Your task to perform on an android device: change keyboard looks Image 0: 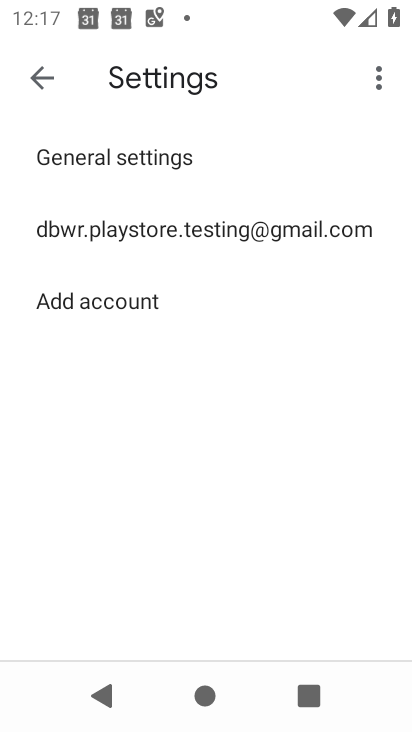
Step 0: press home button
Your task to perform on an android device: change keyboard looks Image 1: 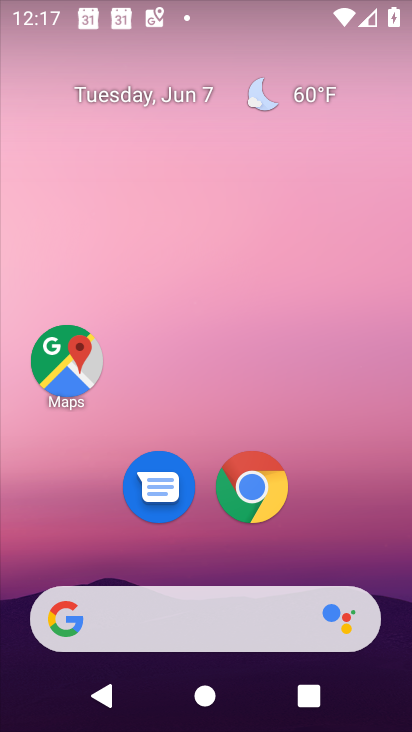
Step 1: drag from (381, 538) to (277, 181)
Your task to perform on an android device: change keyboard looks Image 2: 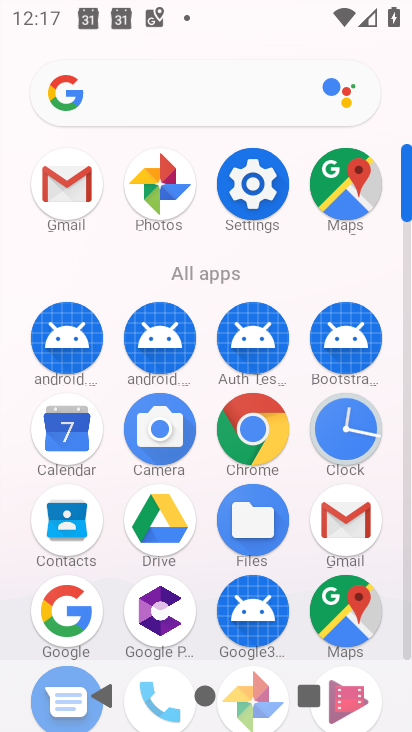
Step 2: click (248, 191)
Your task to perform on an android device: change keyboard looks Image 3: 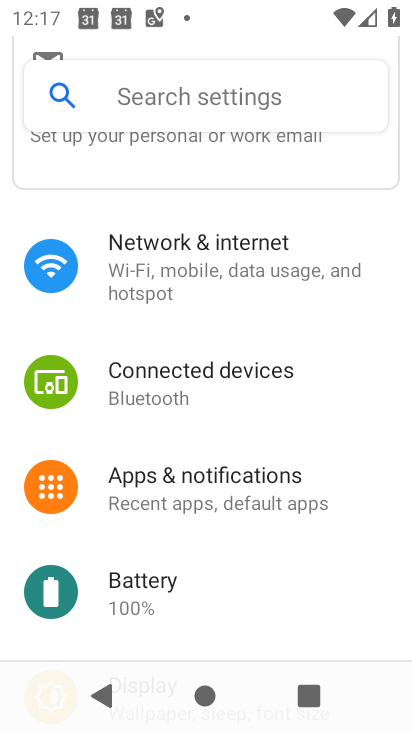
Step 3: drag from (221, 604) to (284, 0)
Your task to perform on an android device: change keyboard looks Image 4: 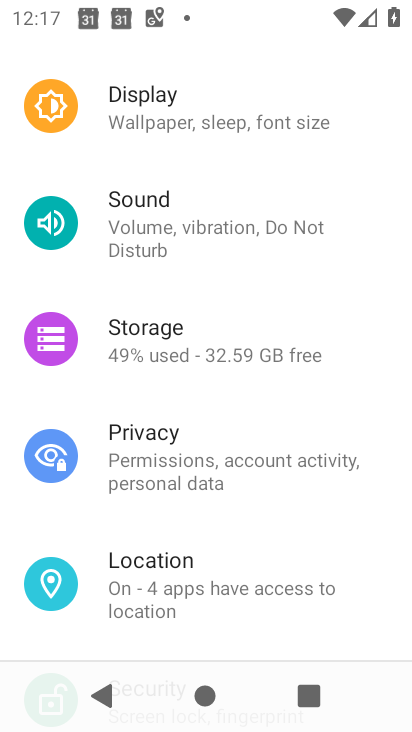
Step 4: drag from (252, 534) to (198, 51)
Your task to perform on an android device: change keyboard looks Image 5: 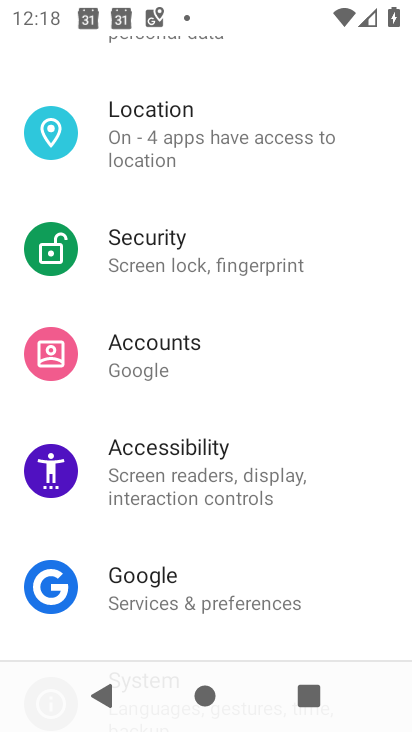
Step 5: drag from (224, 524) to (208, 28)
Your task to perform on an android device: change keyboard looks Image 6: 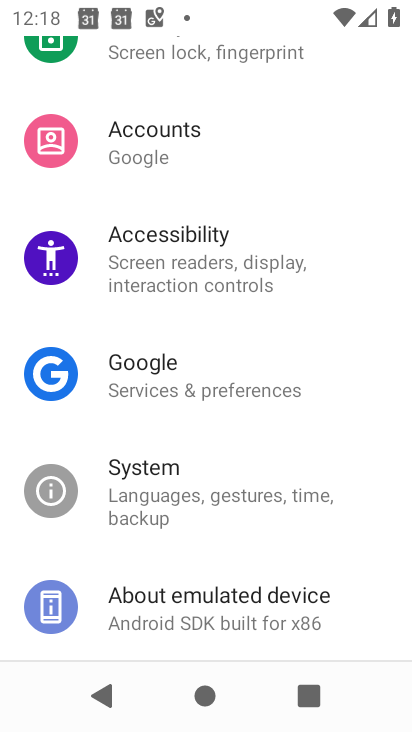
Step 6: click (244, 507)
Your task to perform on an android device: change keyboard looks Image 7: 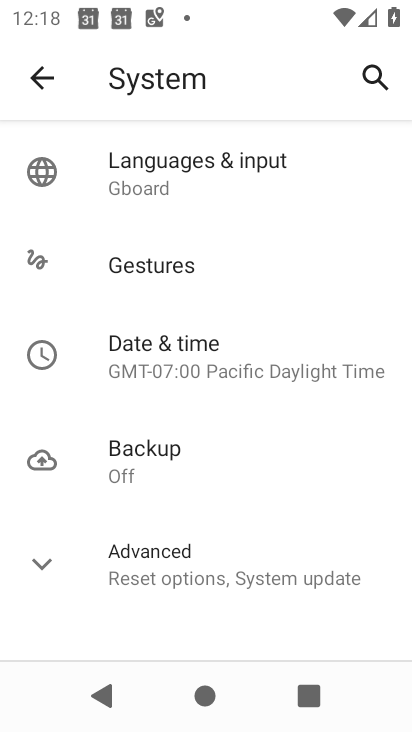
Step 7: click (252, 171)
Your task to perform on an android device: change keyboard looks Image 8: 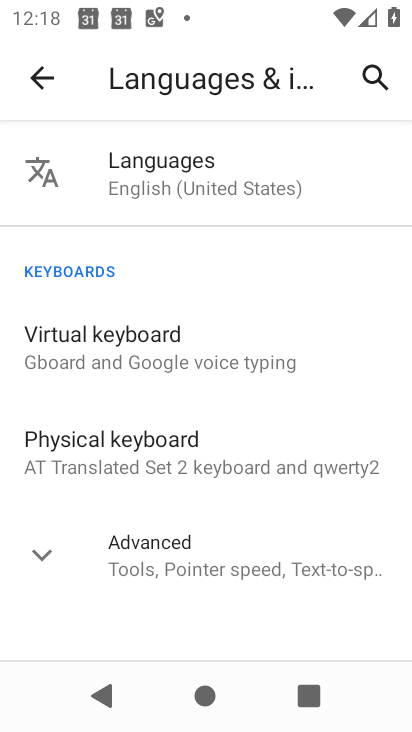
Step 8: click (187, 334)
Your task to perform on an android device: change keyboard looks Image 9: 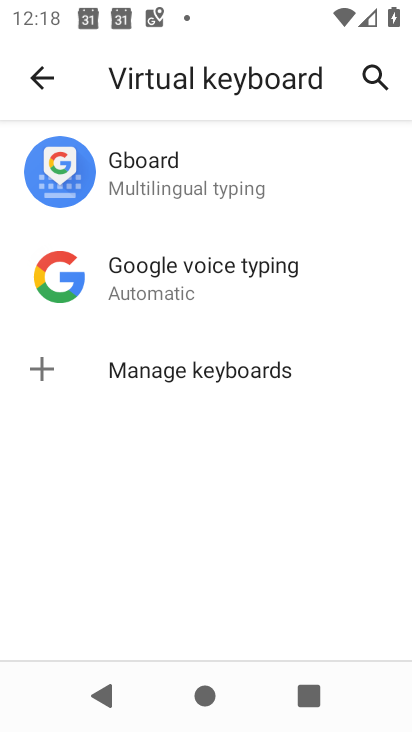
Step 9: click (192, 193)
Your task to perform on an android device: change keyboard looks Image 10: 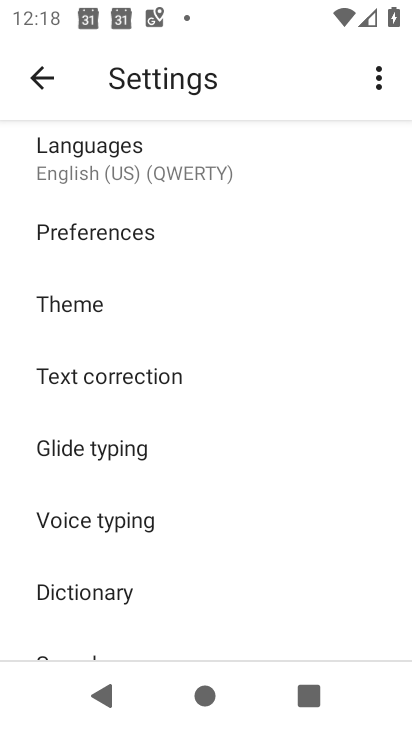
Step 10: click (158, 293)
Your task to perform on an android device: change keyboard looks Image 11: 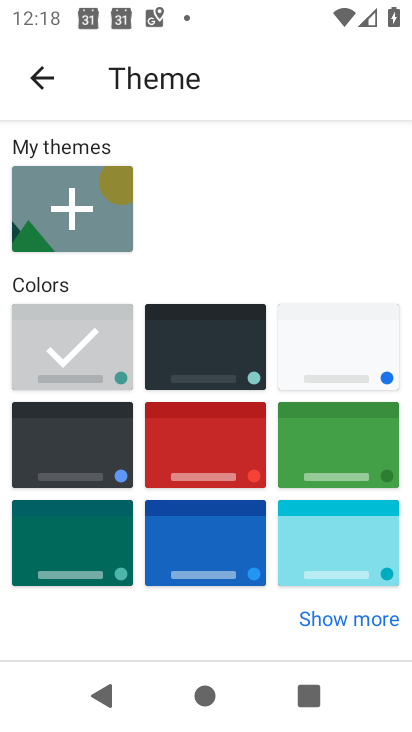
Step 11: click (159, 321)
Your task to perform on an android device: change keyboard looks Image 12: 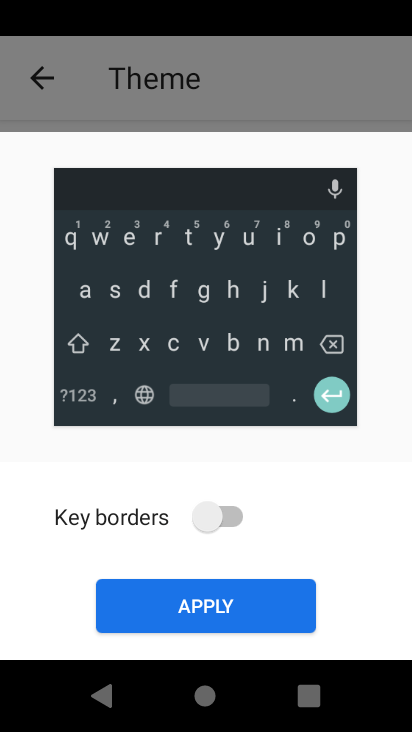
Step 12: click (180, 596)
Your task to perform on an android device: change keyboard looks Image 13: 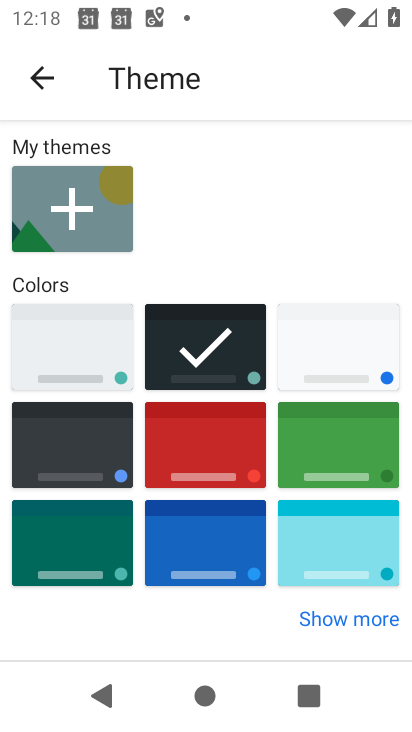
Step 13: task complete